Your task to perform on an android device: change the clock display to show seconds Image 0: 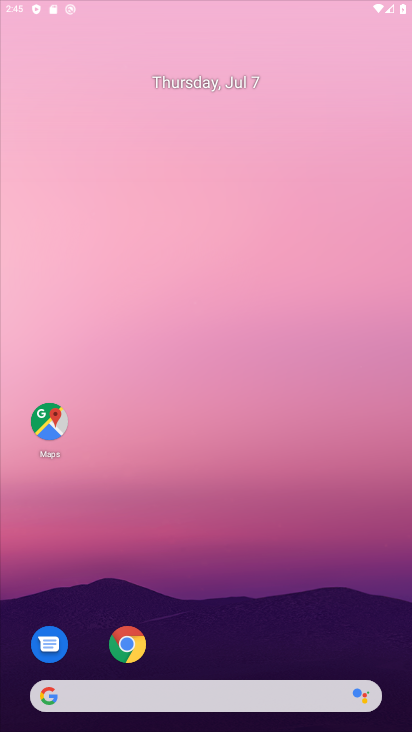
Step 0: drag from (230, 719) to (194, 0)
Your task to perform on an android device: change the clock display to show seconds Image 1: 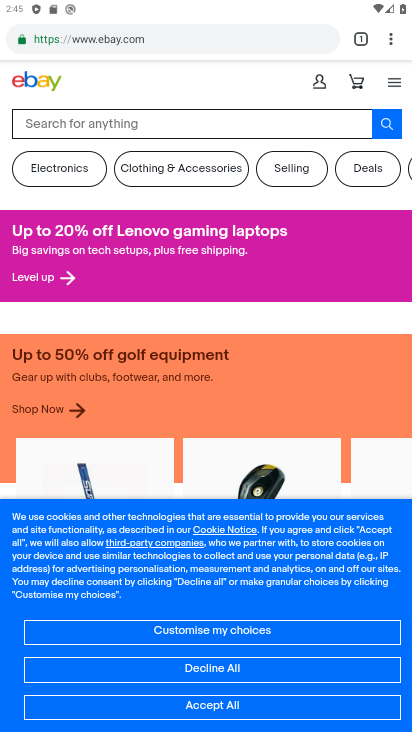
Step 1: press back button
Your task to perform on an android device: change the clock display to show seconds Image 2: 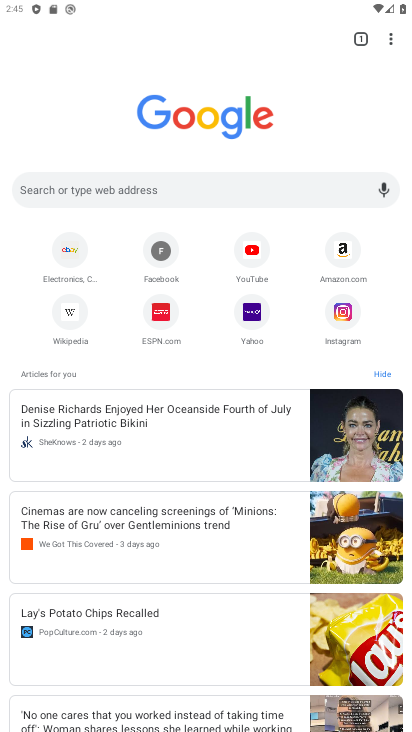
Step 2: press home button
Your task to perform on an android device: change the clock display to show seconds Image 3: 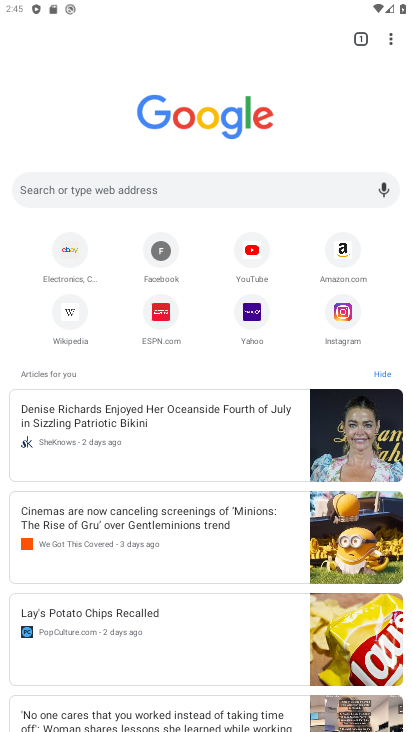
Step 3: press home button
Your task to perform on an android device: change the clock display to show seconds Image 4: 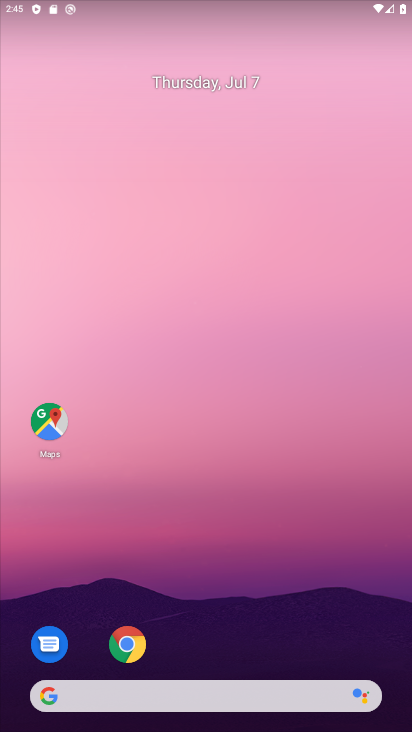
Step 4: drag from (260, 693) to (101, 72)
Your task to perform on an android device: change the clock display to show seconds Image 5: 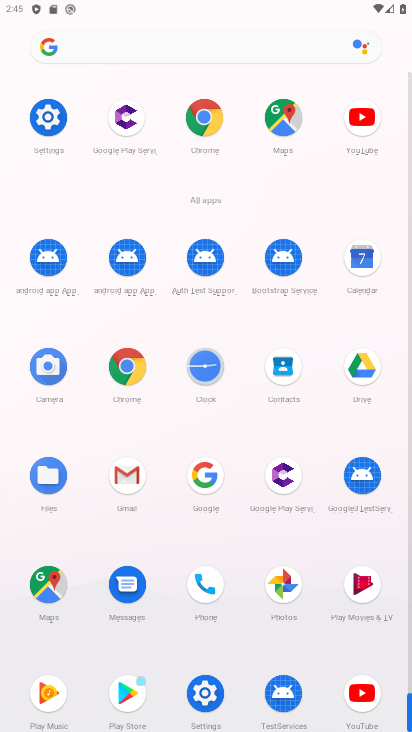
Step 5: click (205, 368)
Your task to perform on an android device: change the clock display to show seconds Image 6: 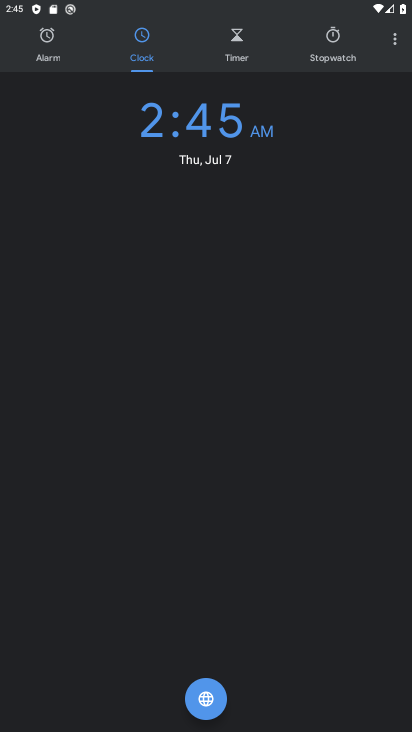
Step 6: click (397, 38)
Your task to perform on an android device: change the clock display to show seconds Image 7: 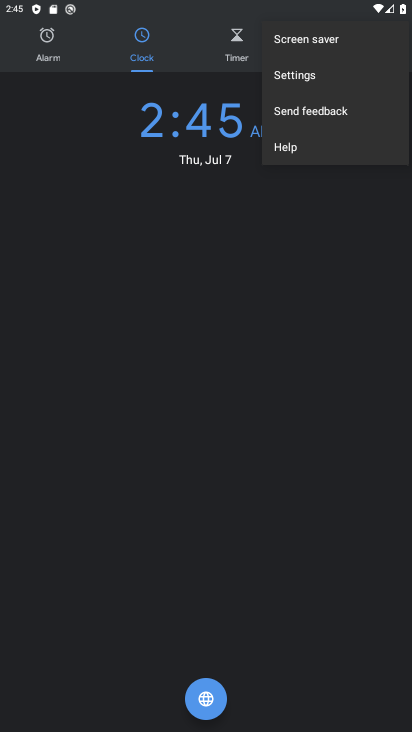
Step 7: click (284, 75)
Your task to perform on an android device: change the clock display to show seconds Image 8: 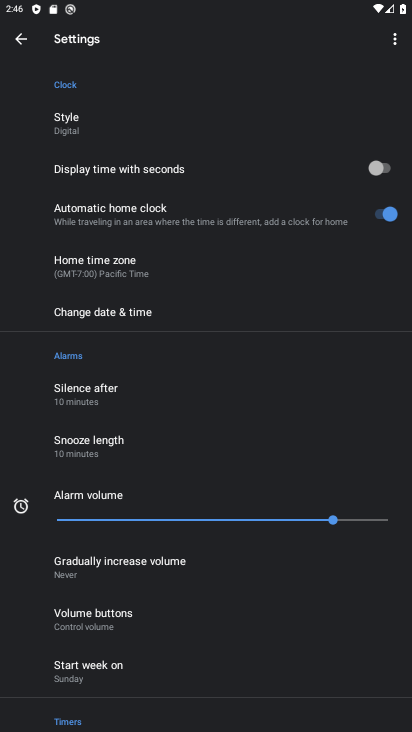
Step 8: click (381, 165)
Your task to perform on an android device: change the clock display to show seconds Image 9: 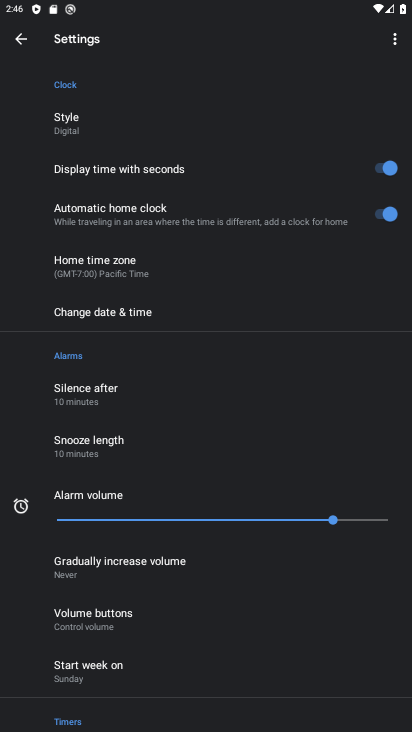
Step 9: task complete